Your task to perform on an android device: Go to Wikipedia Image 0: 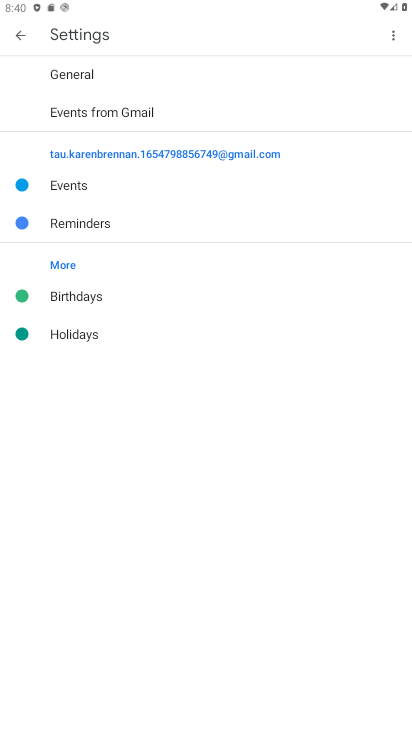
Step 0: press home button
Your task to perform on an android device: Go to Wikipedia Image 1: 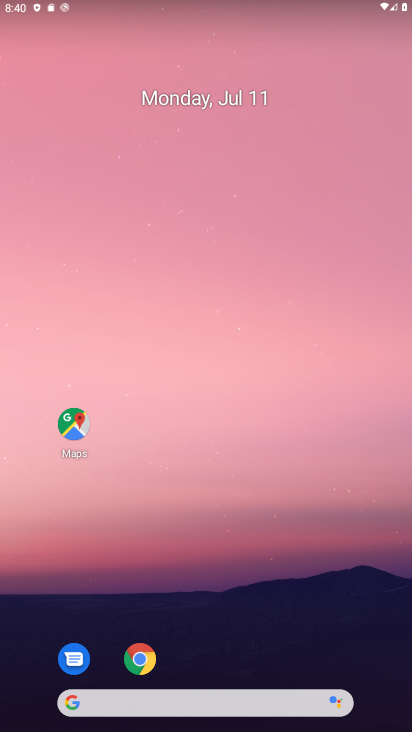
Step 1: drag from (254, 730) to (230, 102)
Your task to perform on an android device: Go to Wikipedia Image 2: 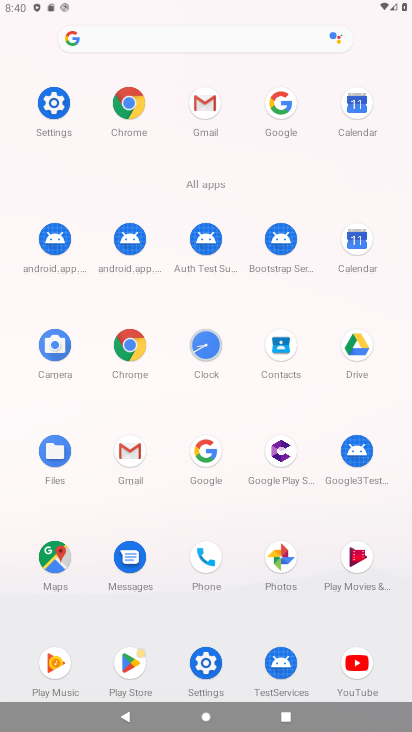
Step 2: click (131, 98)
Your task to perform on an android device: Go to Wikipedia Image 3: 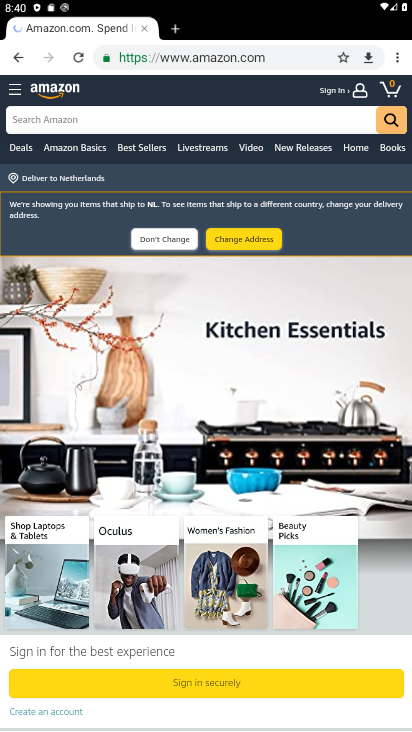
Step 3: click (396, 63)
Your task to perform on an android device: Go to Wikipedia Image 4: 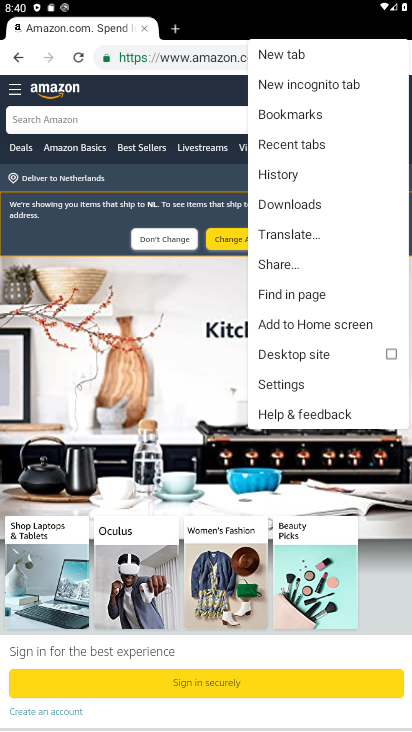
Step 4: click (288, 47)
Your task to perform on an android device: Go to Wikipedia Image 5: 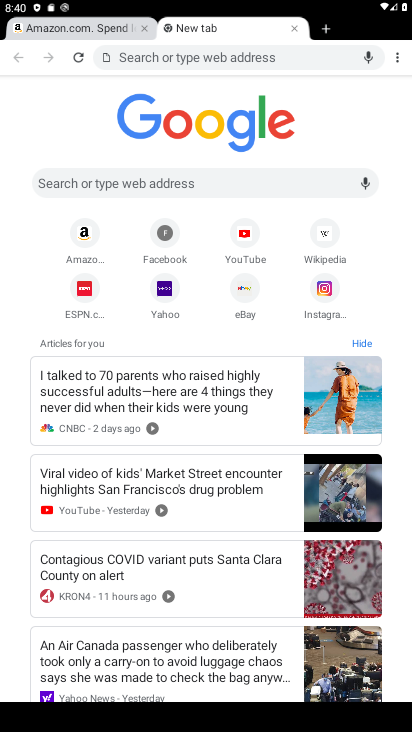
Step 5: click (330, 235)
Your task to perform on an android device: Go to Wikipedia Image 6: 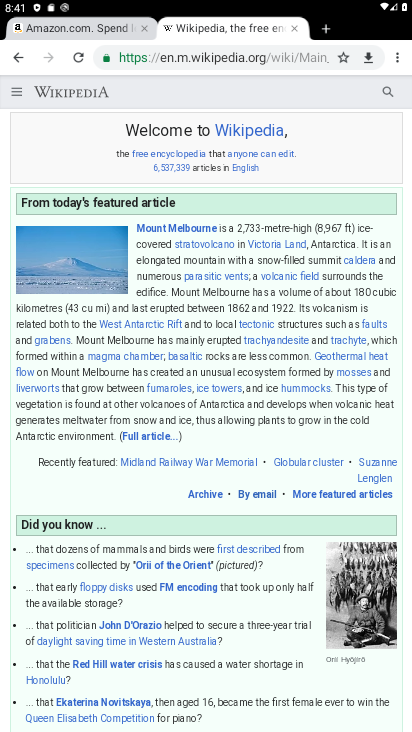
Step 6: task complete